Your task to perform on an android device: uninstall "HBO Max: Stream TV & Movies" Image 0: 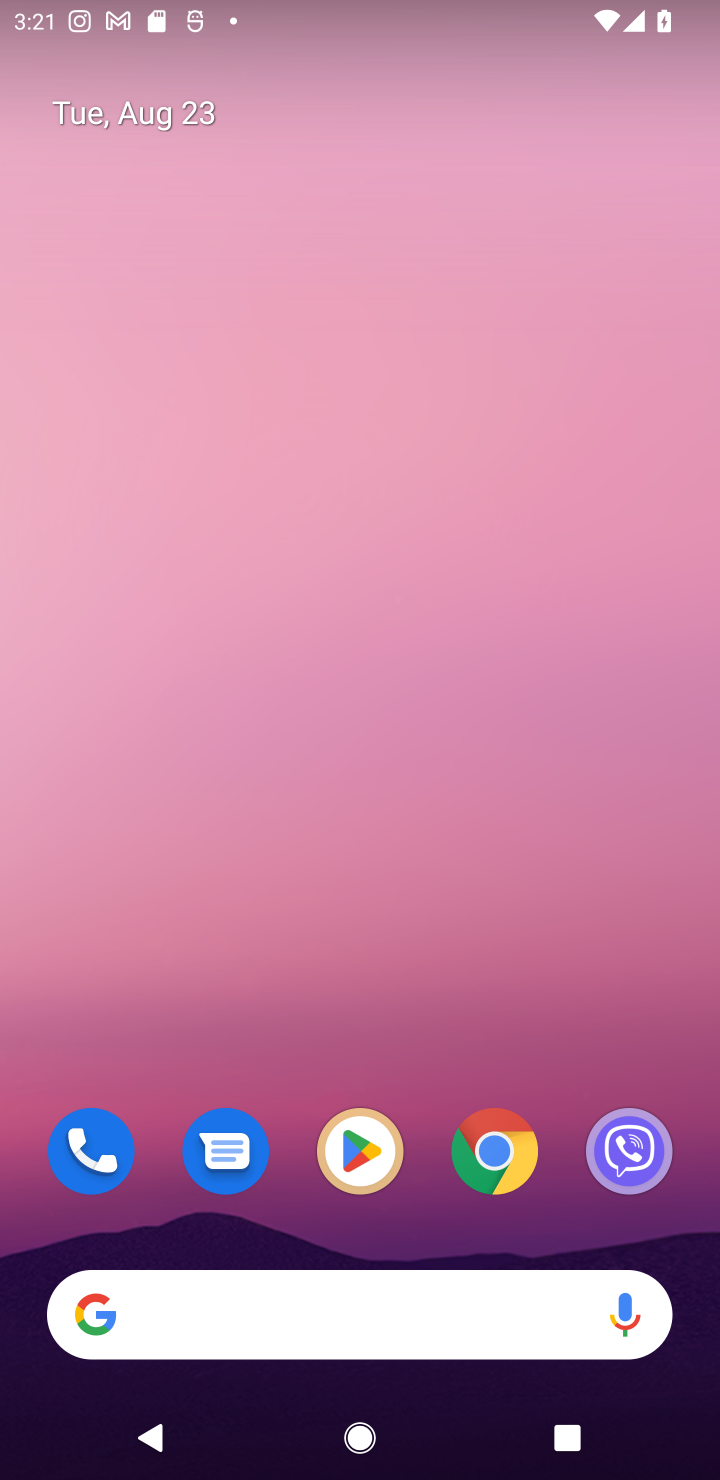
Step 0: click (352, 1150)
Your task to perform on an android device: uninstall "HBO Max: Stream TV & Movies" Image 1: 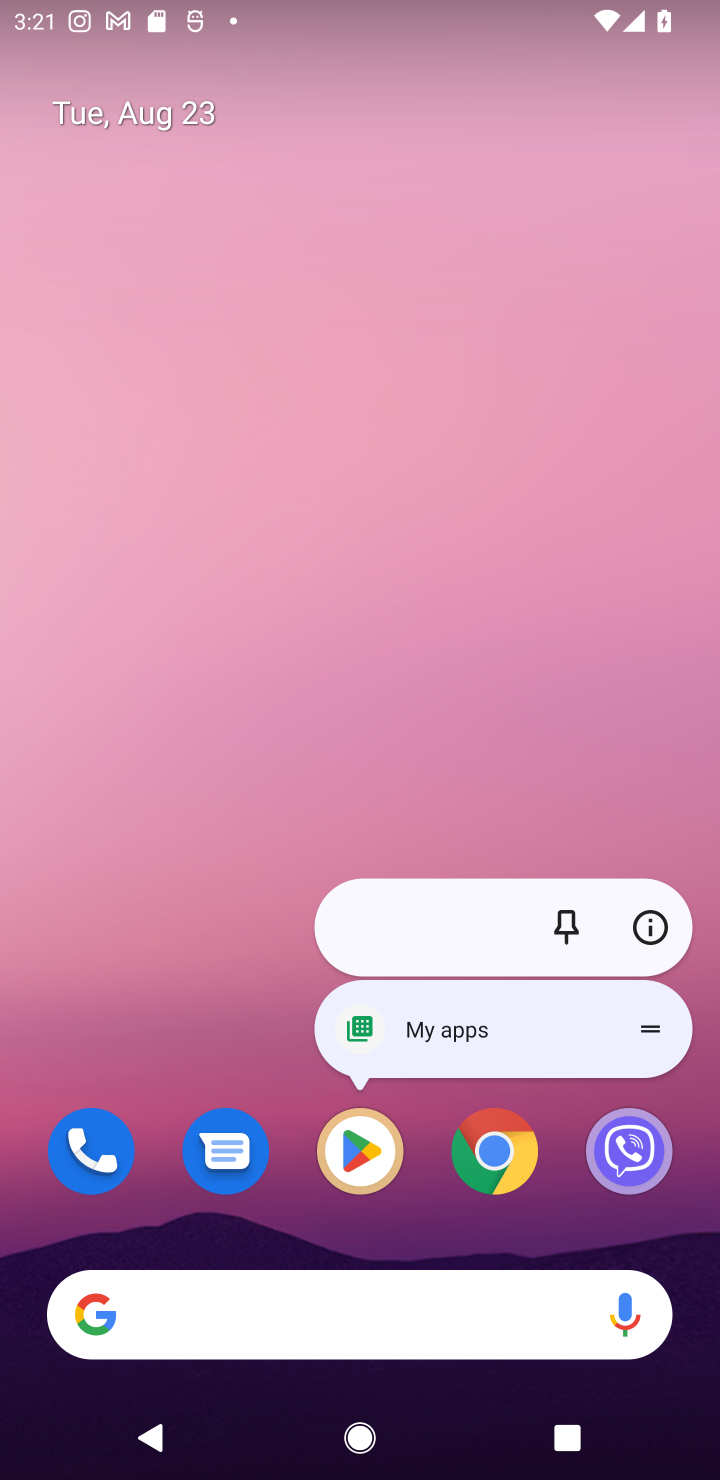
Step 1: click (350, 1159)
Your task to perform on an android device: uninstall "HBO Max: Stream TV & Movies" Image 2: 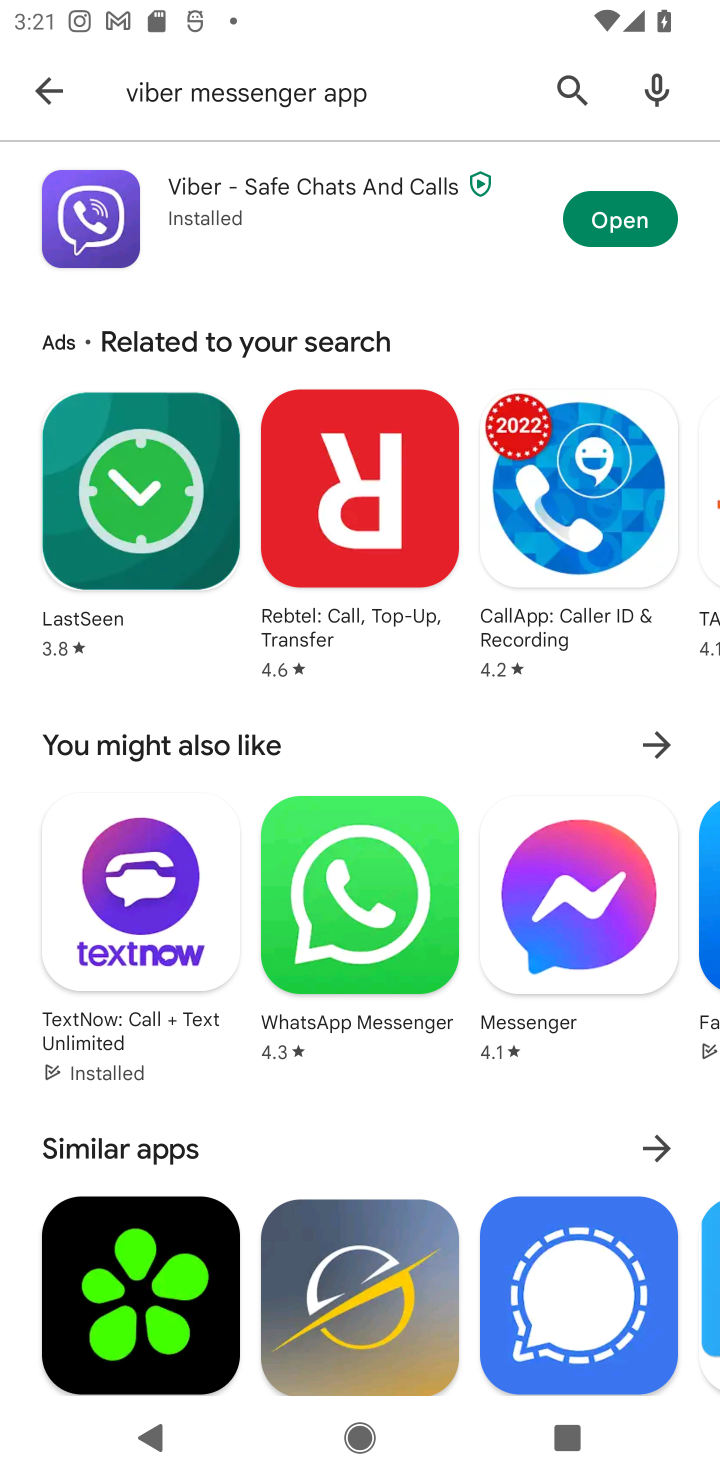
Step 2: click (575, 74)
Your task to perform on an android device: uninstall "HBO Max: Stream TV & Movies" Image 3: 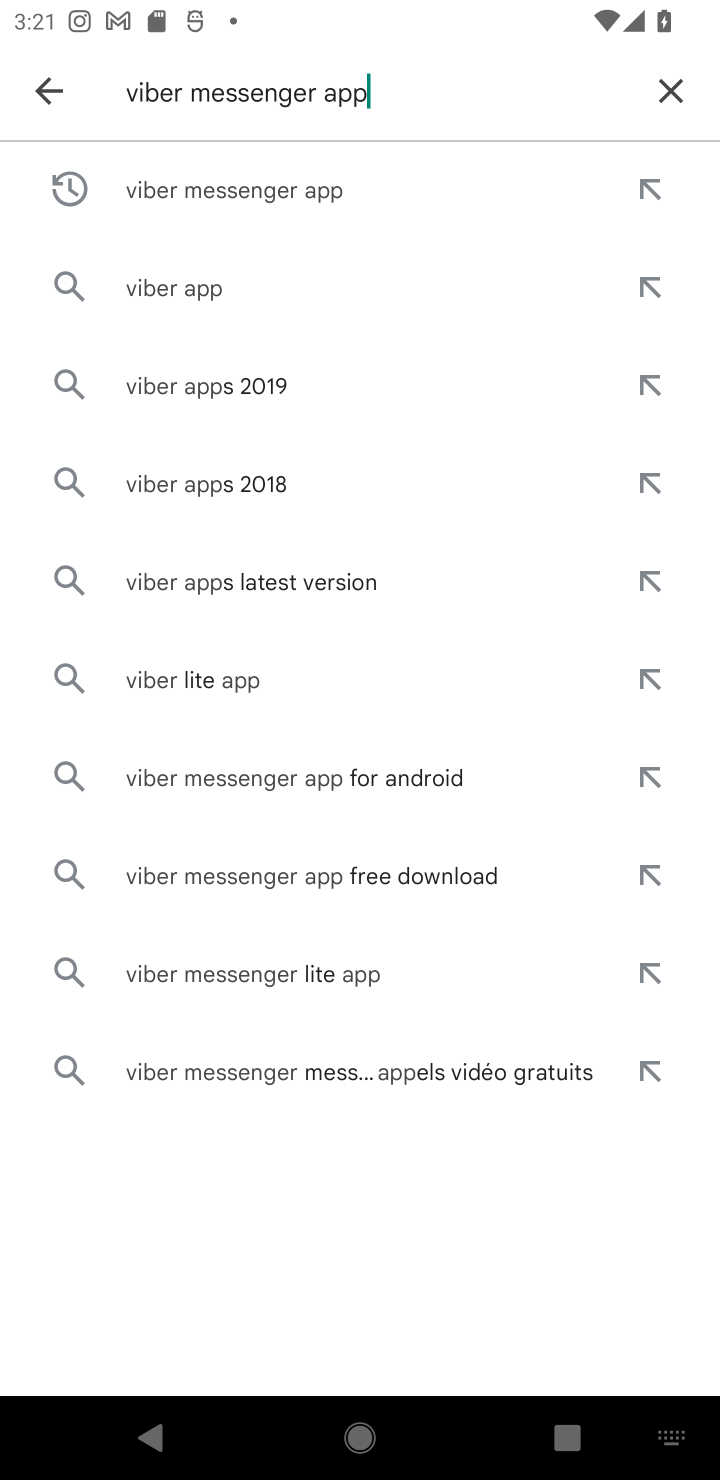
Step 3: click (655, 87)
Your task to perform on an android device: uninstall "HBO Max: Stream TV & Movies" Image 4: 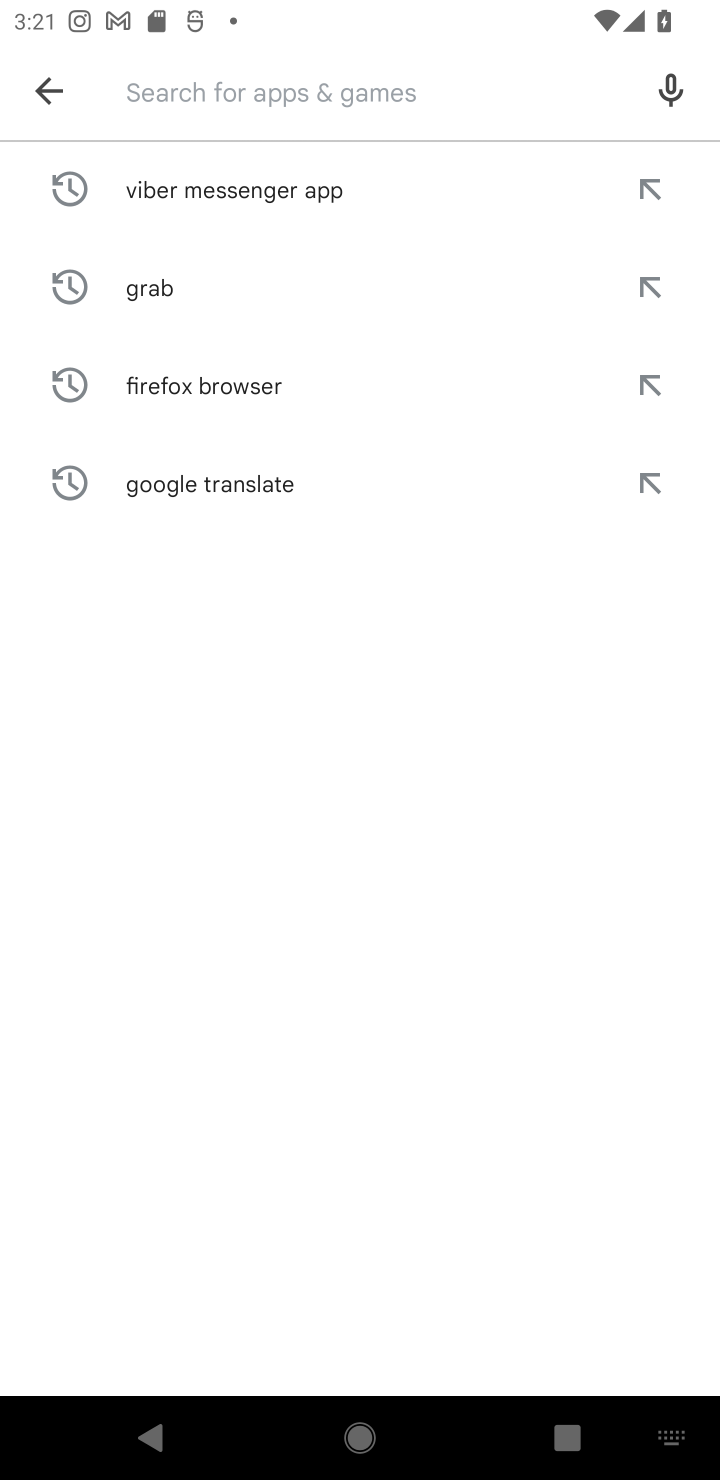
Step 4: type "HBO Max: Stream TV & Movies"
Your task to perform on an android device: uninstall "HBO Max: Stream TV & Movies" Image 5: 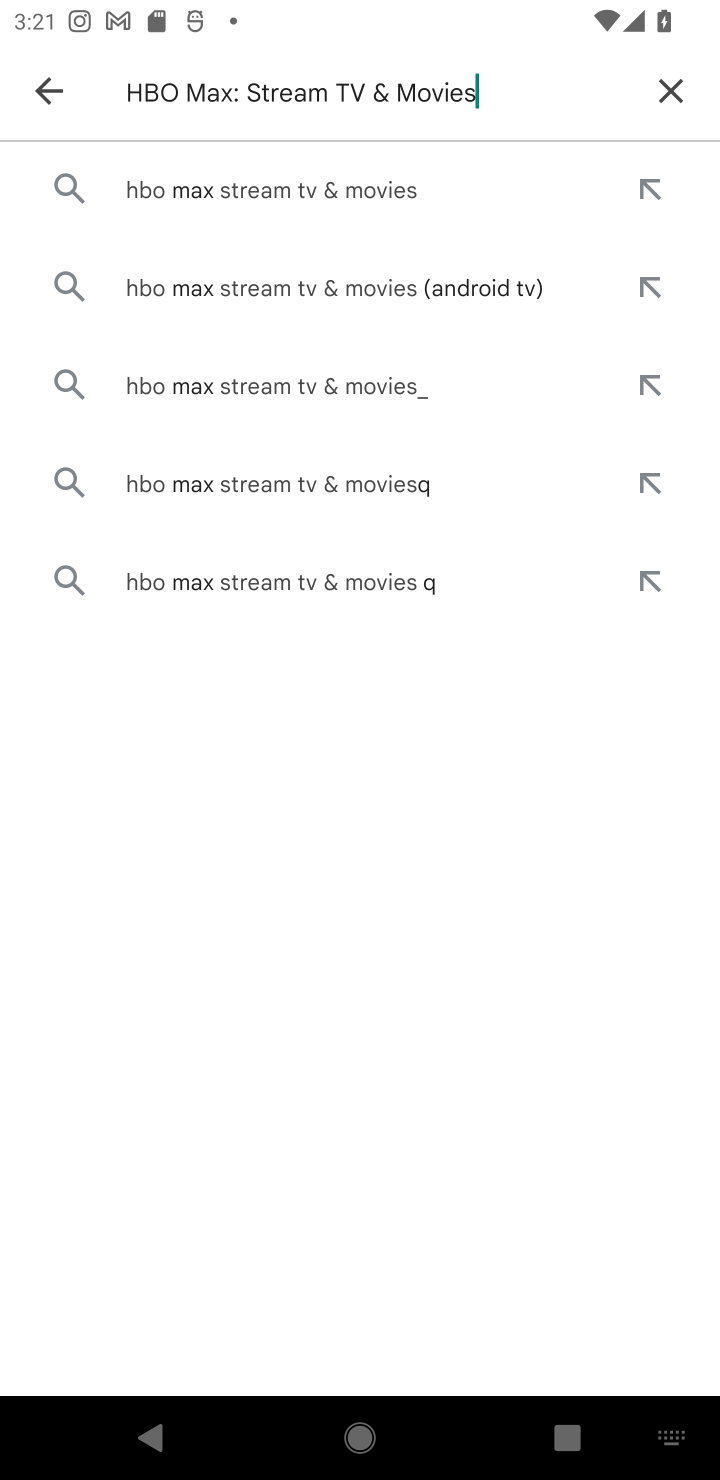
Step 5: click (418, 186)
Your task to perform on an android device: uninstall "HBO Max: Stream TV & Movies" Image 6: 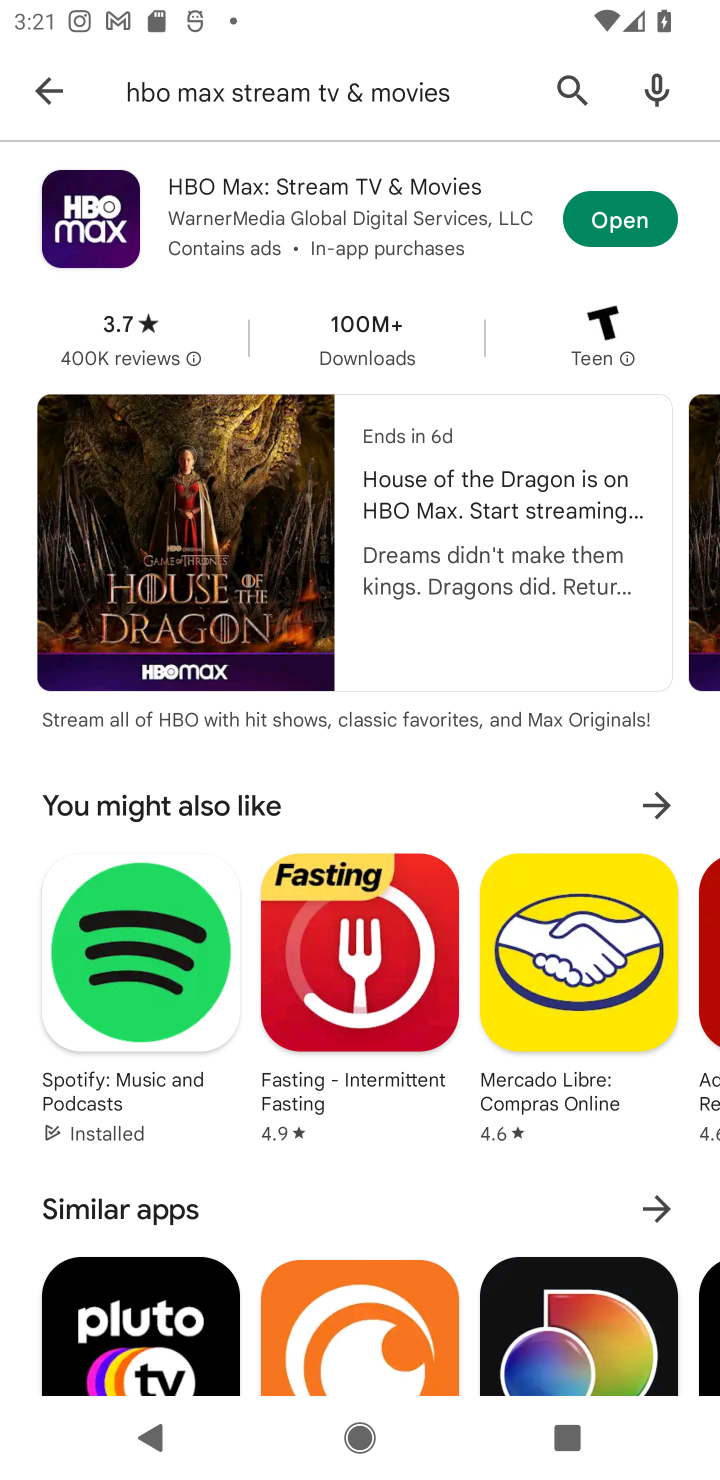
Step 6: click (129, 214)
Your task to perform on an android device: uninstall "HBO Max: Stream TV & Movies" Image 7: 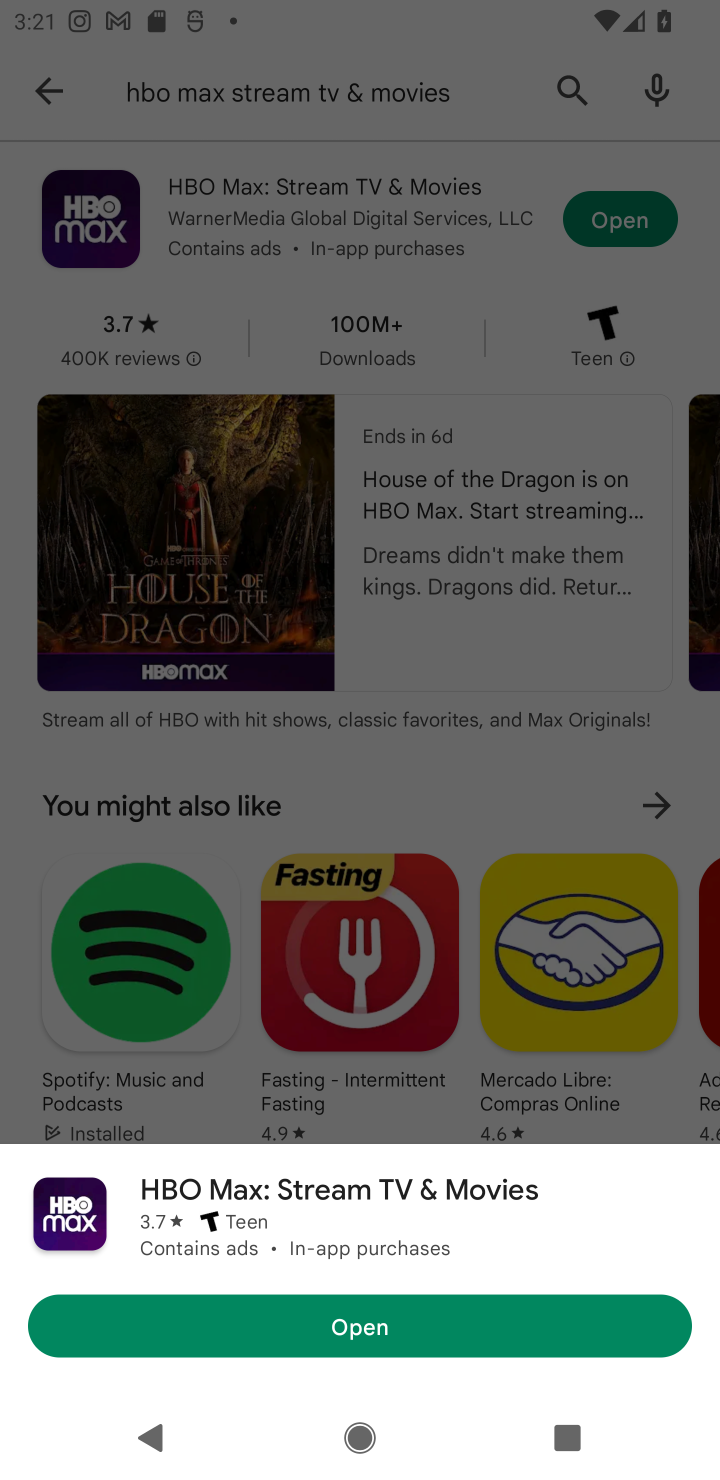
Step 7: click (263, 211)
Your task to perform on an android device: uninstall "HBO Max: Stream TV & Movies" Image 8: 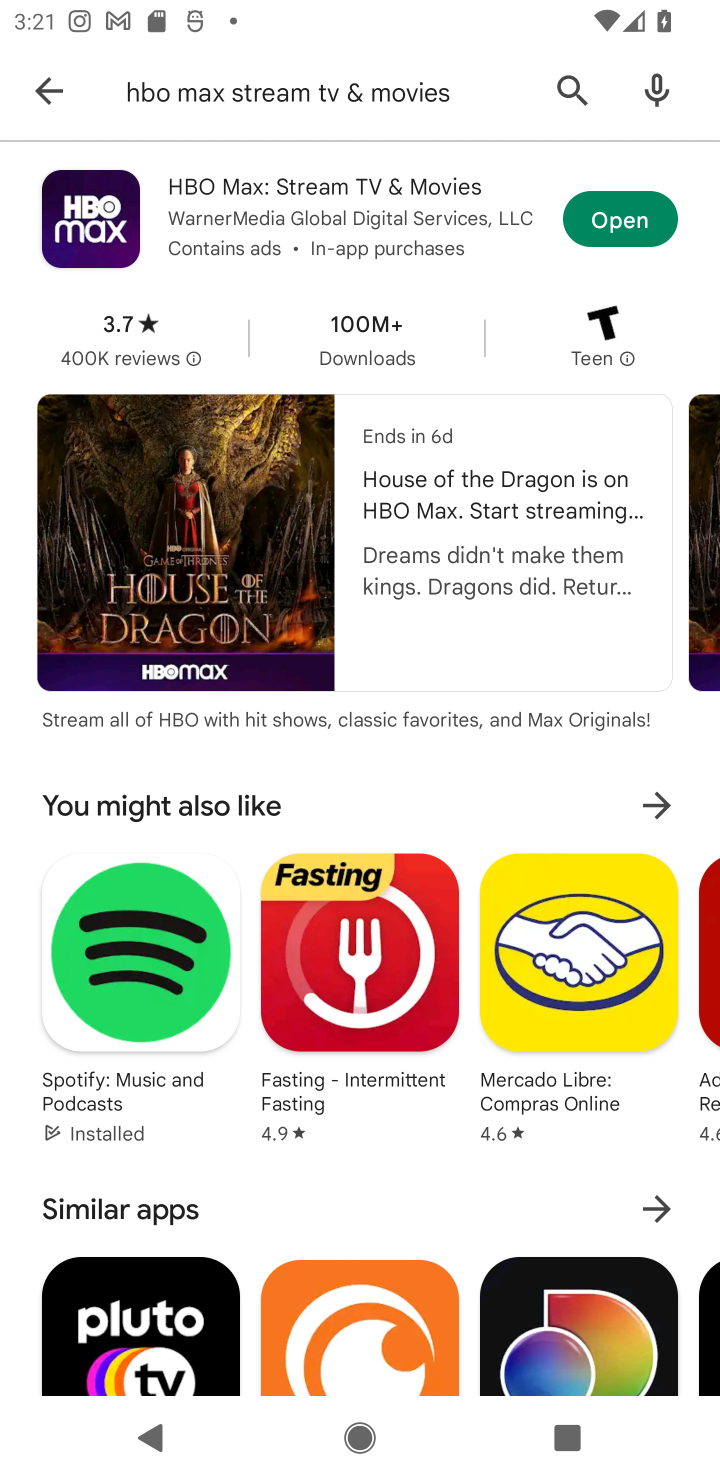
Step 8: click (233, 193)
Your task to perform on an android device: uninstall "HBO Max: Stream TV & Movies" Image 9: 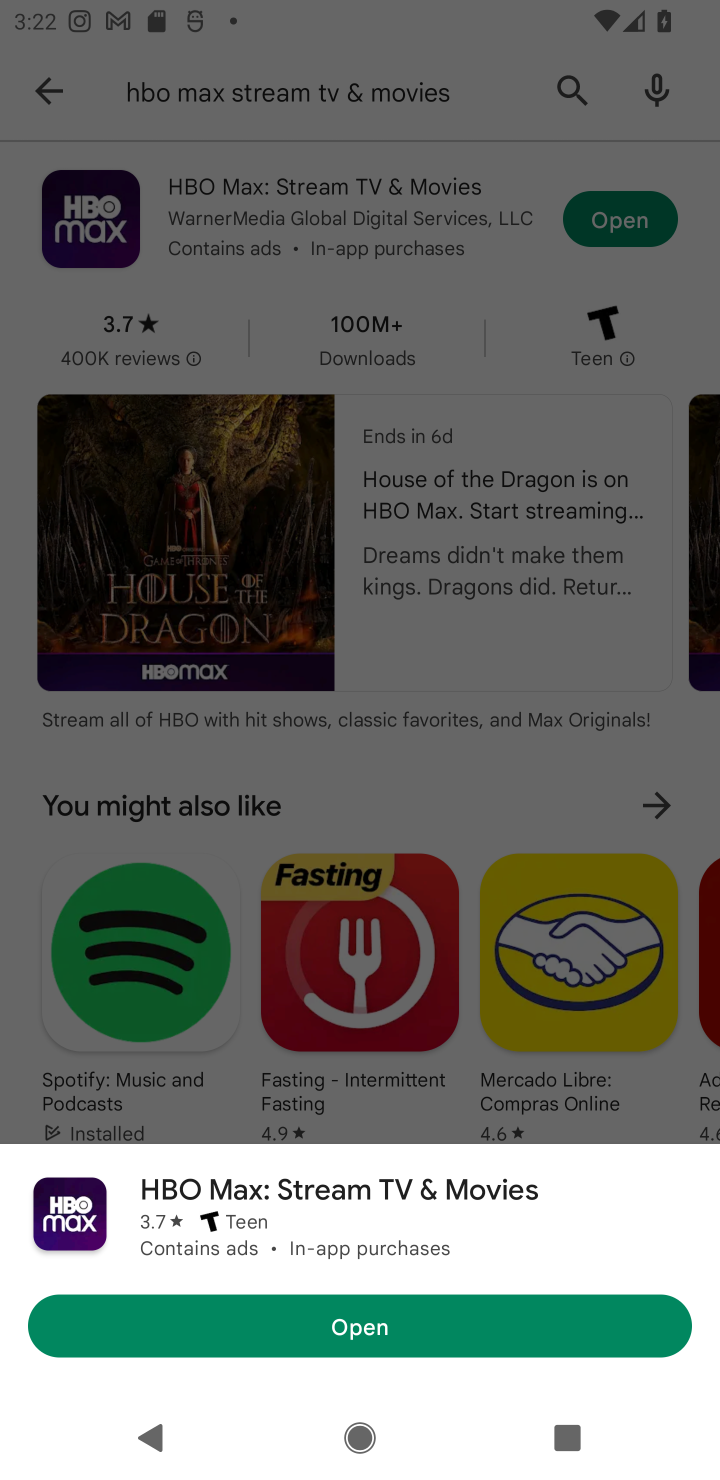
Step 9: click (87, 1204)
Your task to perform on an android device: uninstall "HBO Max: Stream TV & Movies" Image 10: 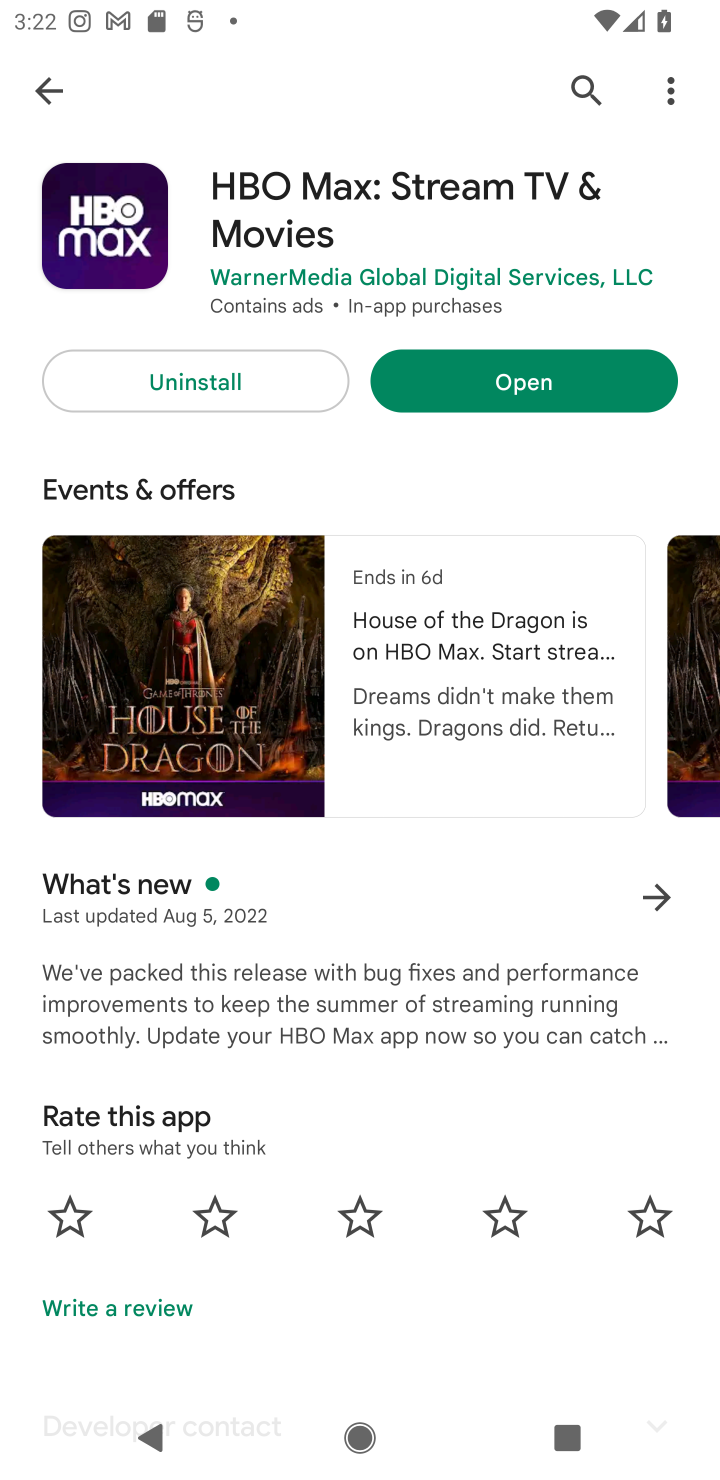
Step 10: click (241, 372)
Your task to perform on an android device: uninstall "HBO Max: Stream TV & Movies" Image 11: 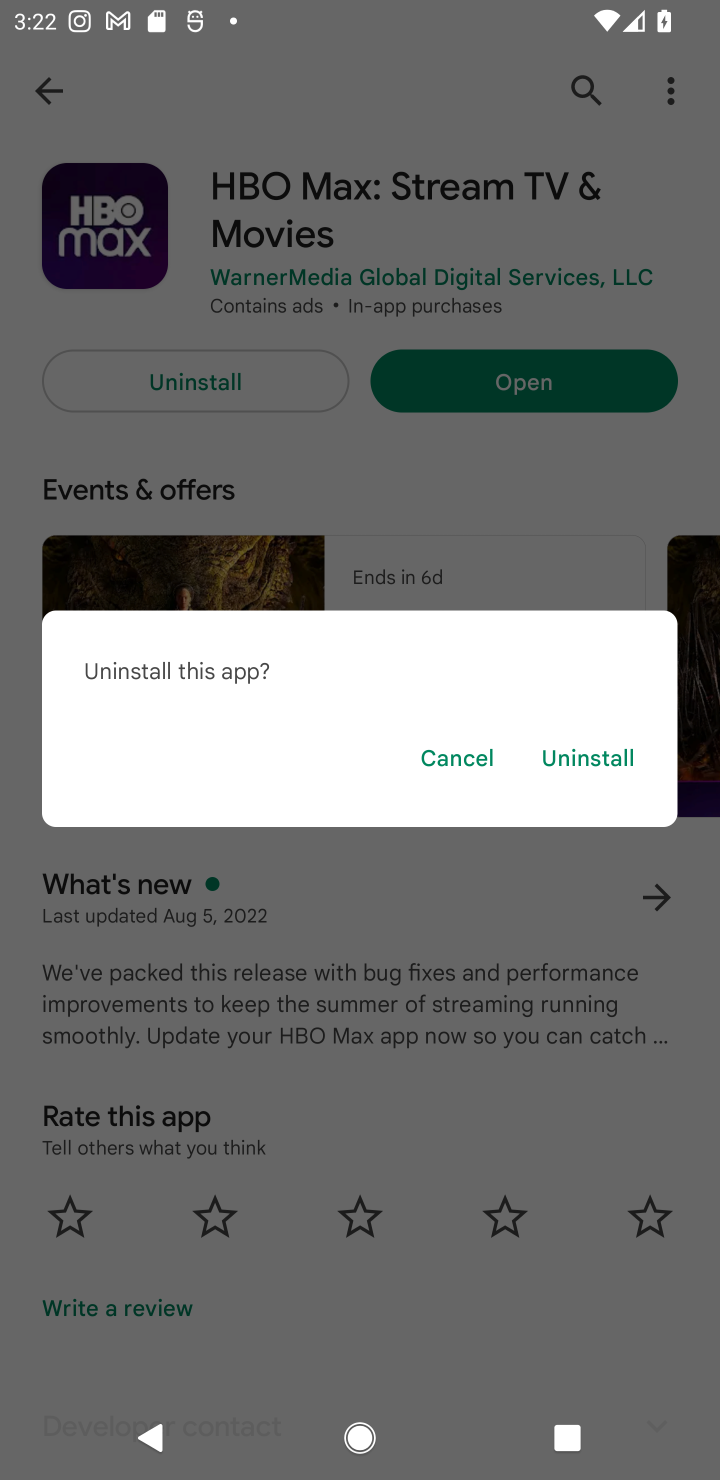
Step 11: click (582, 758)
Your task to perform on an android device: uninstall "HBO Max: Stream TV & Movies" Image 12: 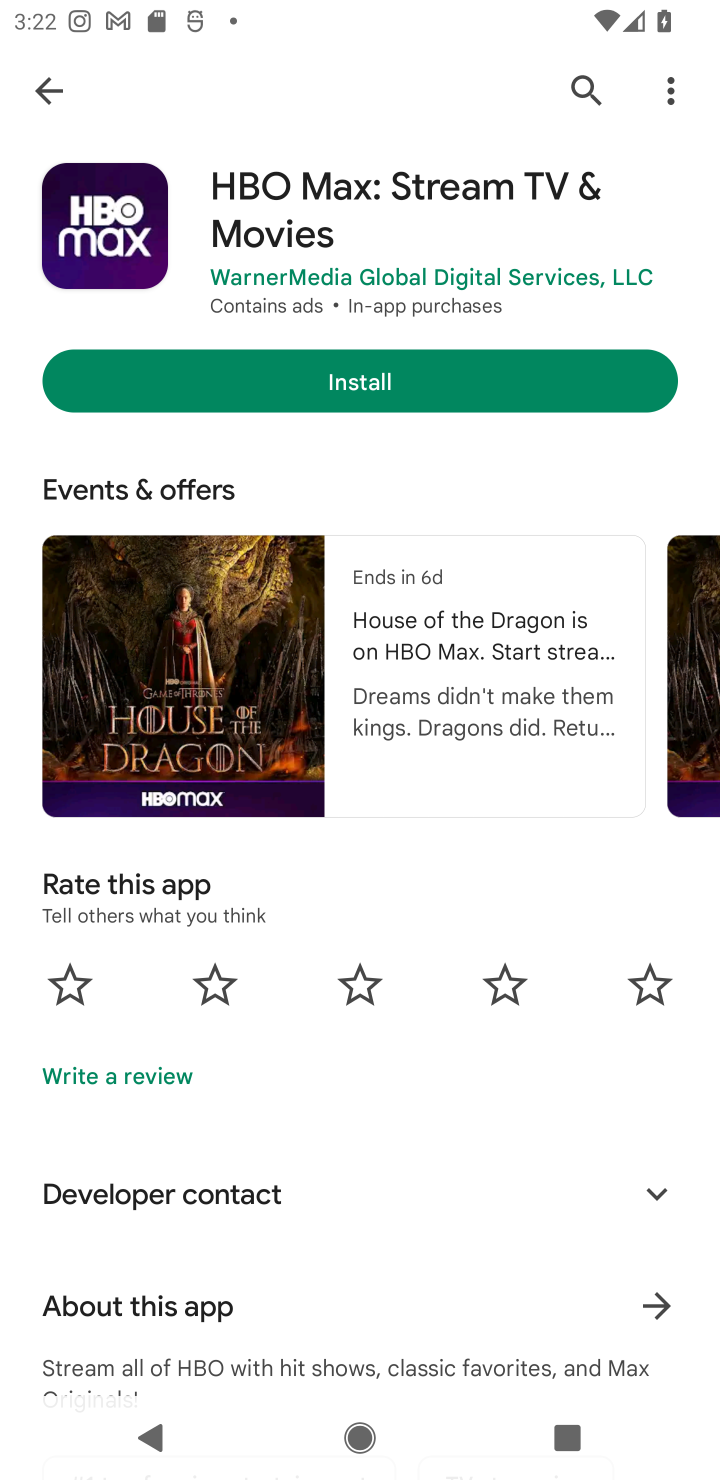
Step 12: task complete